Your task to perform on an android device: Open the calendar and show me this week's events? Image 0: 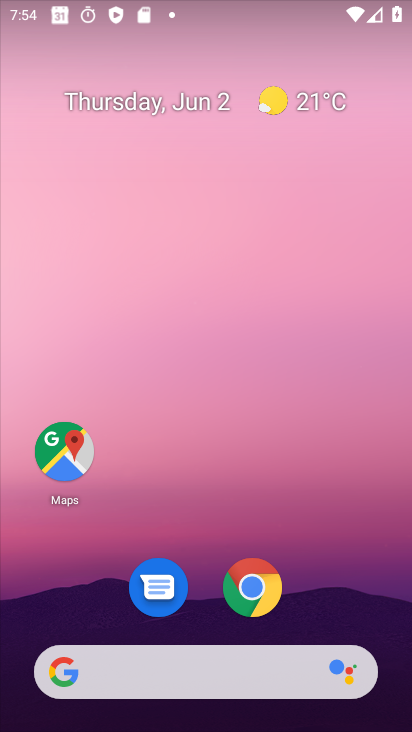
Step 0: drag from (352, 633) to (328, 5)
Your task to perform on an android device: Open the calendar and show me this week's events? Image 1: 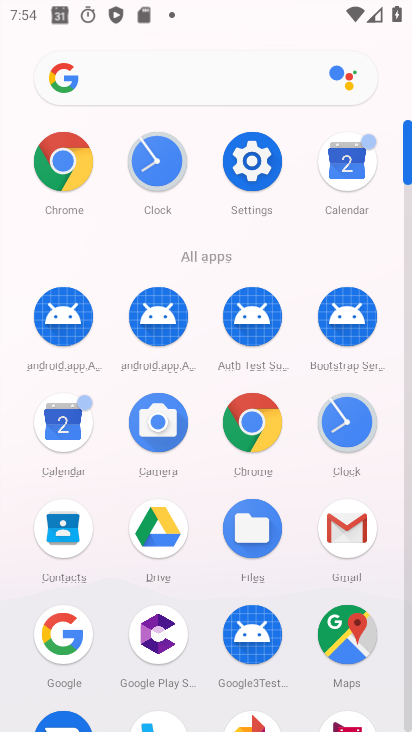
Step 1: click (350, 160)
Your task to perform on an android device: Open the calendar and show me this week's events? Image 2: 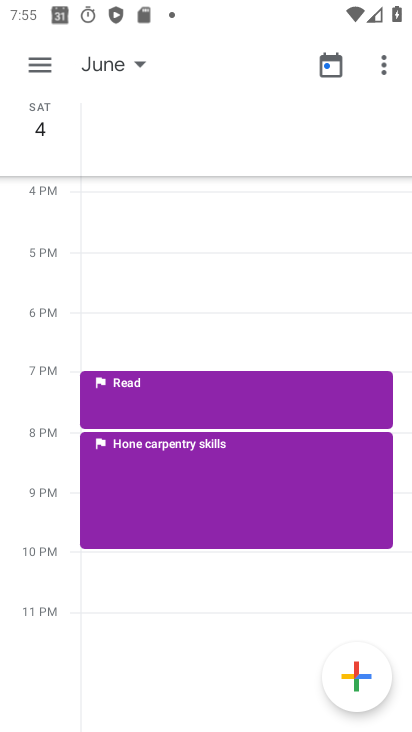
Step 2: click (44, 68)
Your task to perform on an android device: Open the calendar and show me this week's events? Image 3: 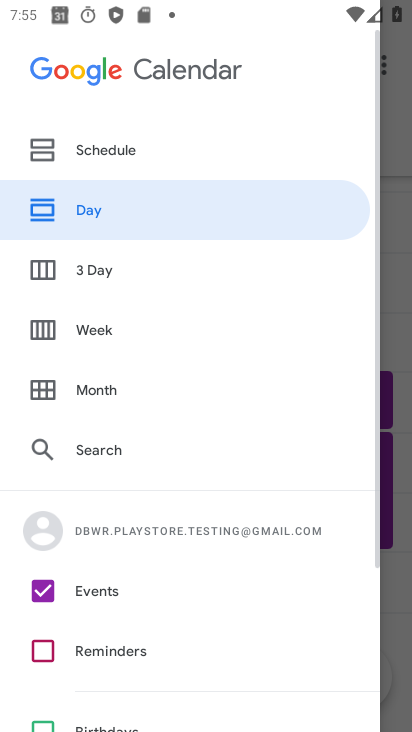
Step 3: click (100, 329)
Your task to perform on an android device: Open the calendar and show me this week's events? Image 4: 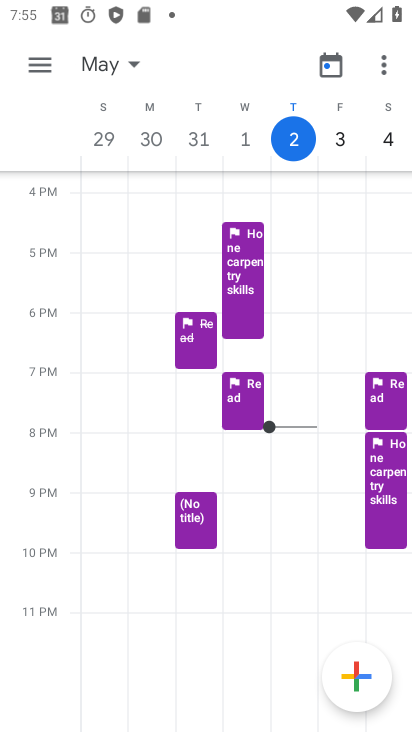
Step 4: task complete